Your task to perform on an android device: When is my next meeting? Image 0: 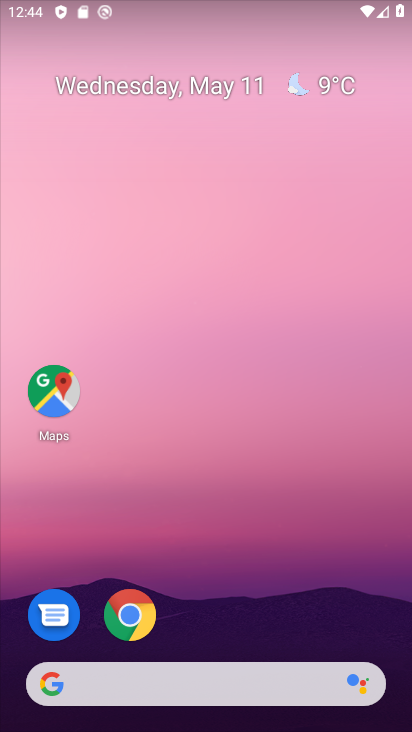
Step 0: drag from (302, 658) to (258, 89)
Your task to perform on an android device: When is my next meeting? Image 1: 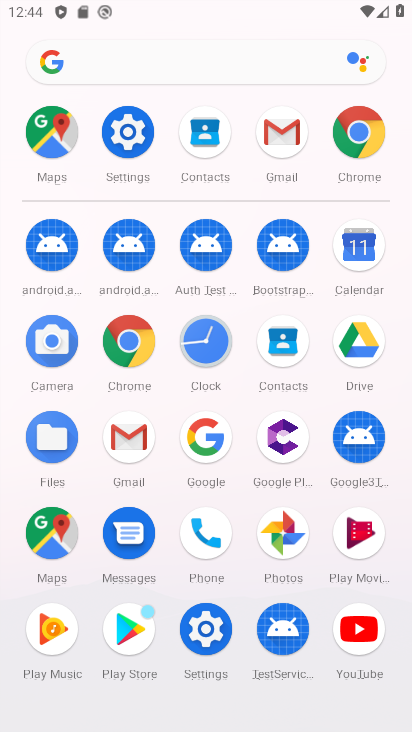
Step 1: click (351, 270)
Your task to perform on an android device: When is my next meeting? Image 2: 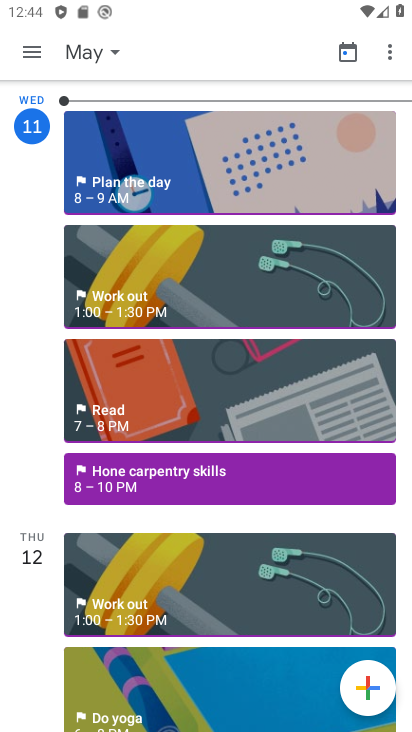
Step 2: task complete